Your task to perform on an android device: What's on my calendar today? Image 0: 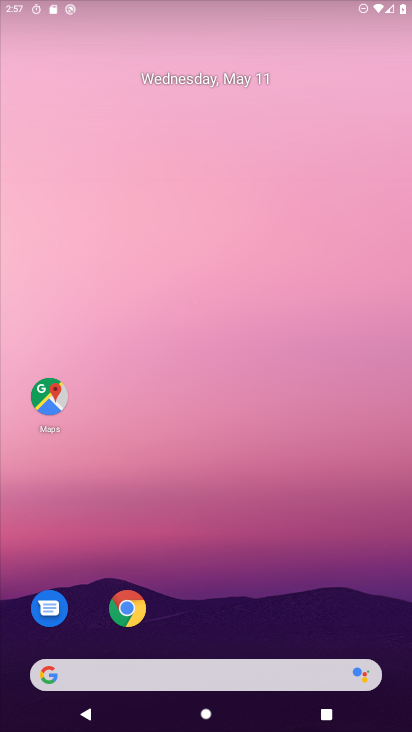
Step 0: click (129, 605)
Your task to perform on an android device: What's on my calendar today? Image 1: 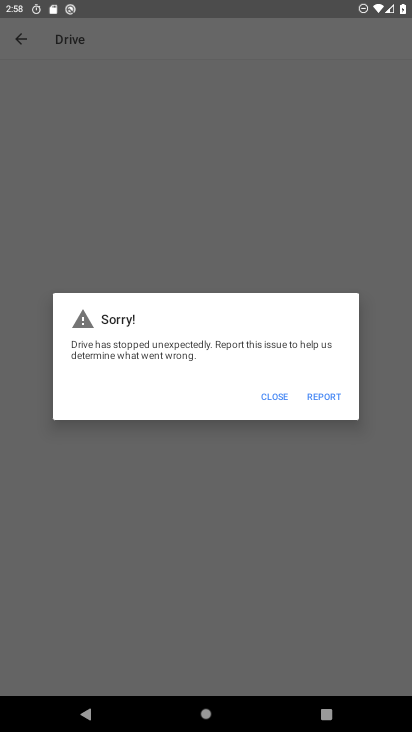
Step 1: press home button
Your task to perform on an android device: What's on my calendar today? Image 2: 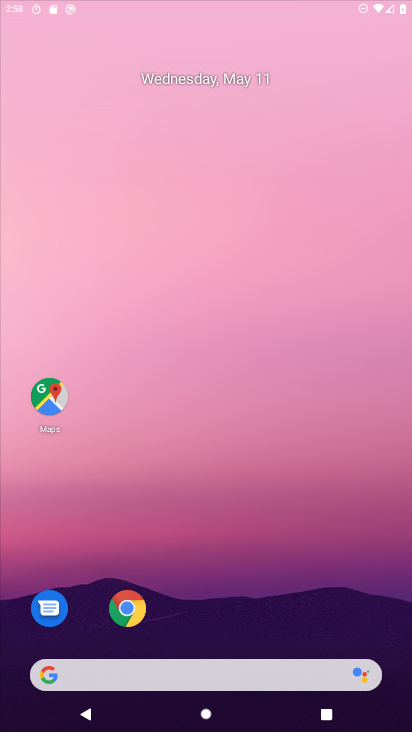
Step 2: press home button
Your task to perform on an android device: What's on my calendar today? Image 3: 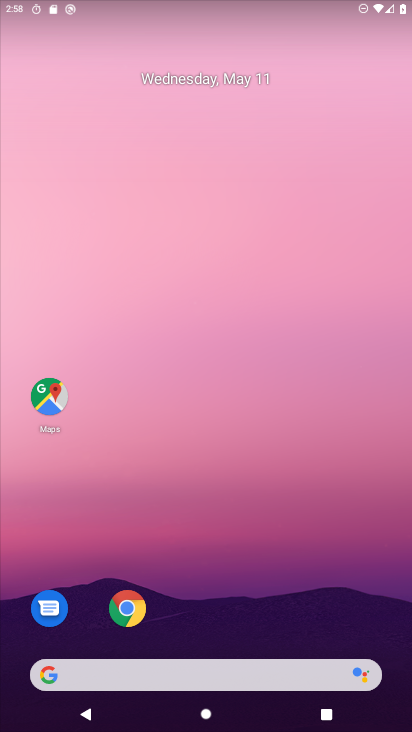
Step 3: drag from (305, 566) to (291, 30)
Your task to perform on an android device: What's on my calendar today? Image 4: 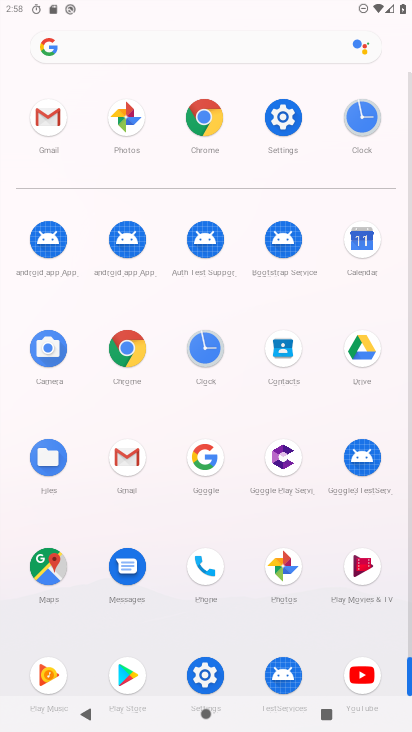
Step 4: click (278, 371)
Your task to perform on an android device: What's on my calendar today? Image 5: 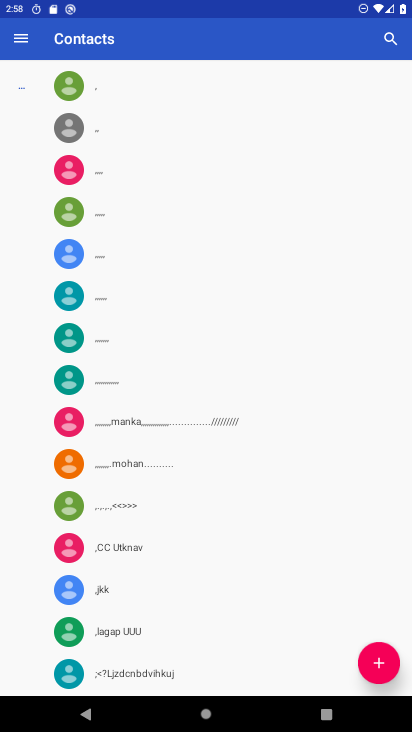
Step 5: press back button
Your task to perform on an android device: What's on my calendar today? Image 6: 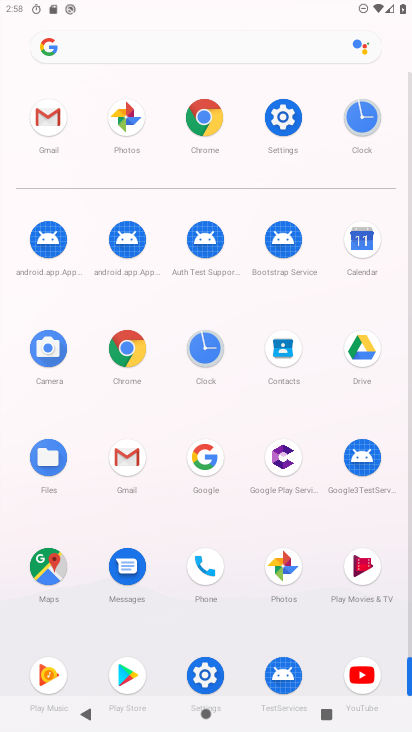
Step 6: click (354, 237)
Your task to perform on an android device: What's on my calendar today? Image 7: 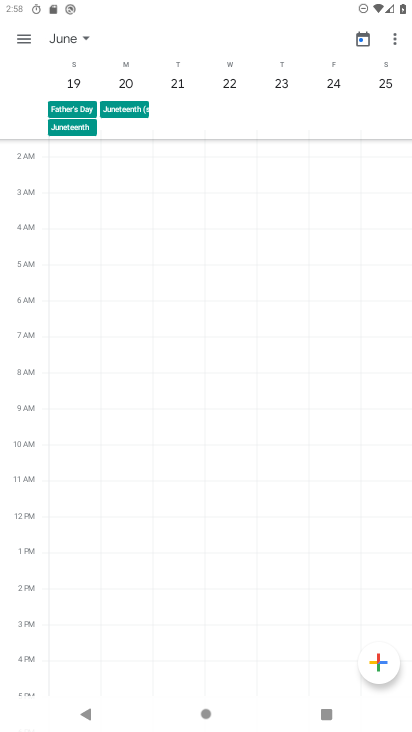
Step 7: click (26, 41)
Your task to perform on an android device: What's on my calendar today? Image 8: 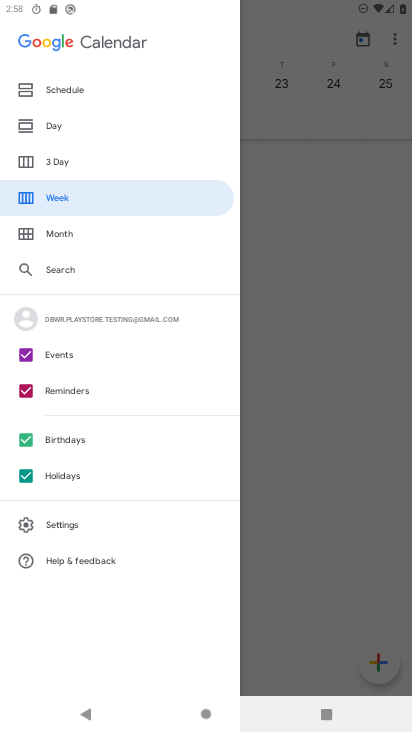
Step 8: click (60, 240)
Your task to perform on an android device: What's on my calendar today? Image 9: 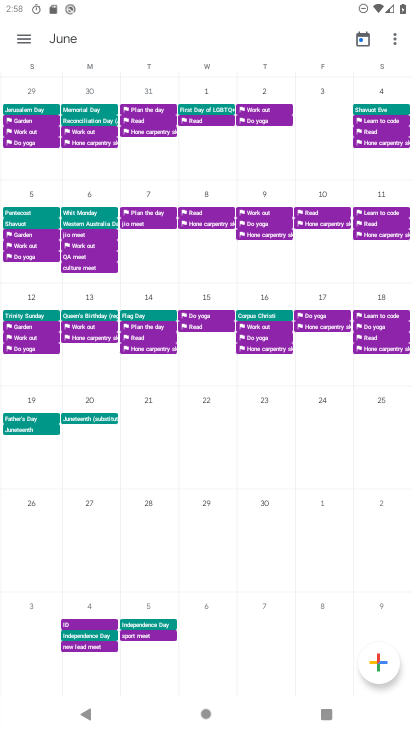
Step 9: task complete